Your task to perform on an android device: Open settings Image 0: 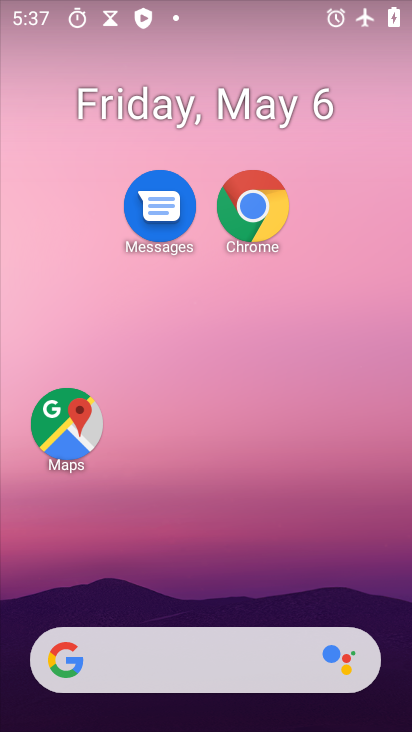
Step 0: drag from (212, 617) to (212, 274)
Your task to perform on an android device: Open settings Image 1: 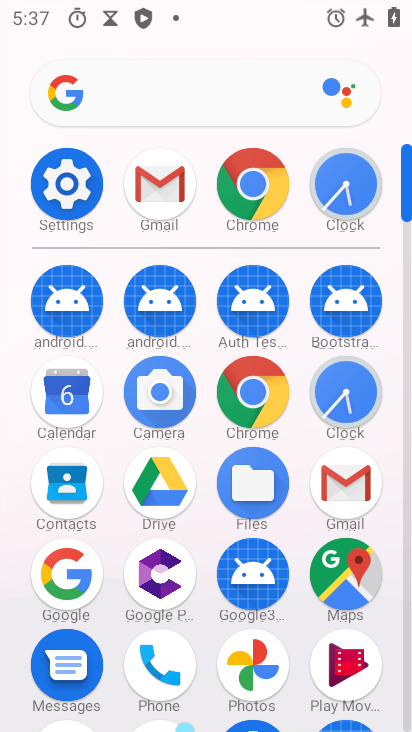
Step 1: click (66, 181)
Your task to perform on an android device: Open settings Image 2: 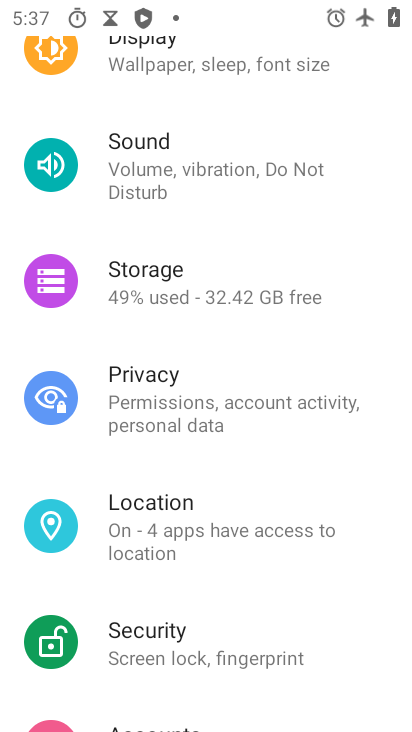
Step 2: task complete